Your task to perform on an android device: Do I have any events today? Image 0: 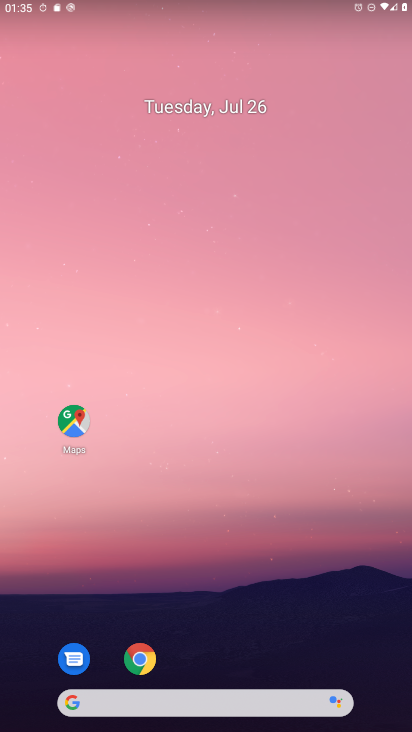
Step 0: drag from (286, 657) to (243, 65)
Your task to perform on an android device: Do I have any events today? Image 1: 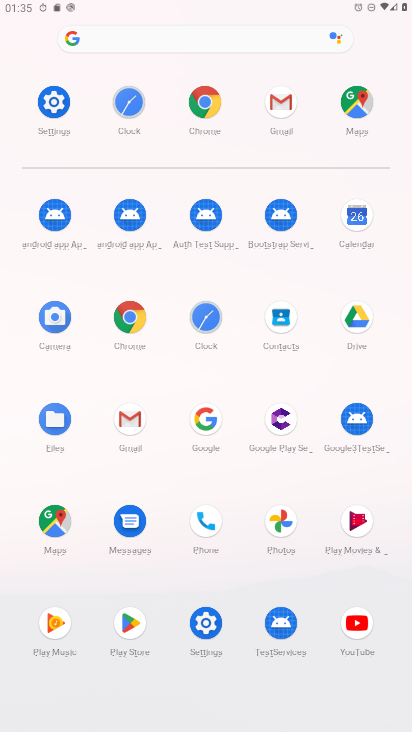
Step 1: click (360, 204)
Your task to perform on an android device: Do I have any events today? Image 2: 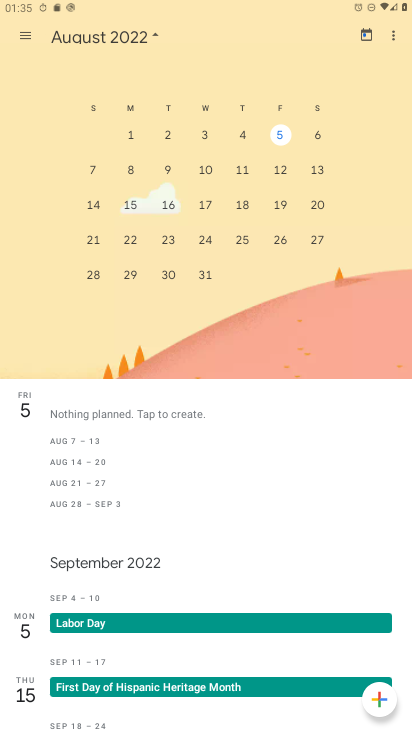
Step 2: drag from (42, 199) to (368, 202)
Your task to perform on an android device: Do I have any events today? Image 3: 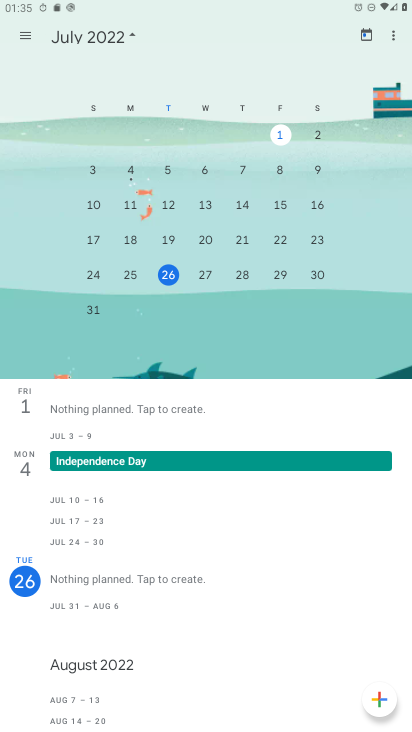
Step 3: click (163, 271)
Your task to perform on an android device: Do I have any events today? Image 4: 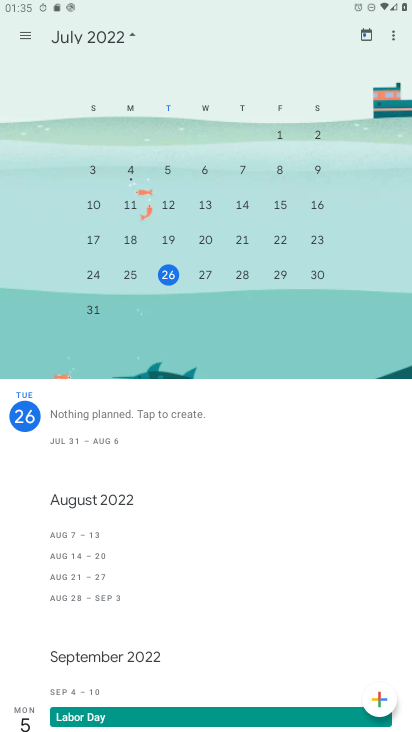
Step 4: task complete